Your task to perform on an android device: all mails in gmail Image 0: 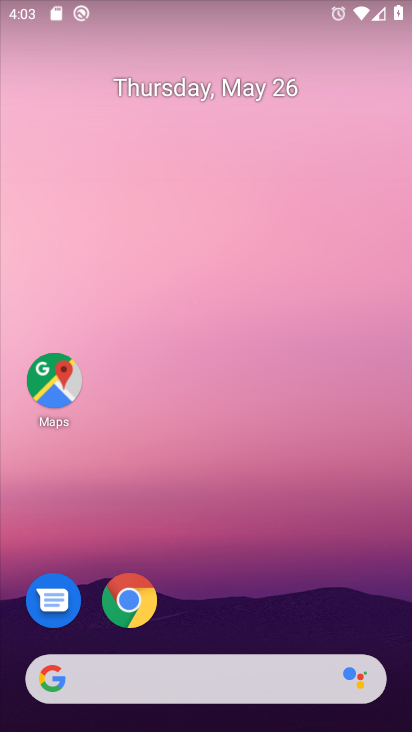
Step 0: drag from (195, 626) to (289, 259)
Your task to perform on an android device: all mails in gmail Image 1: 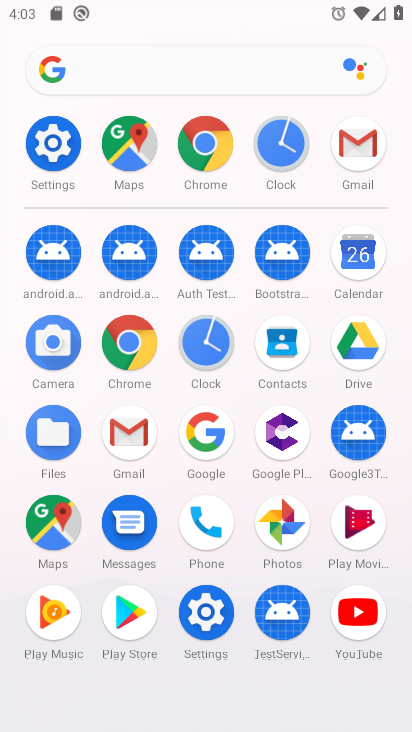
Step 1: click (117, 444)
Your task to perform on an android device: all mails in gmail Image 2: 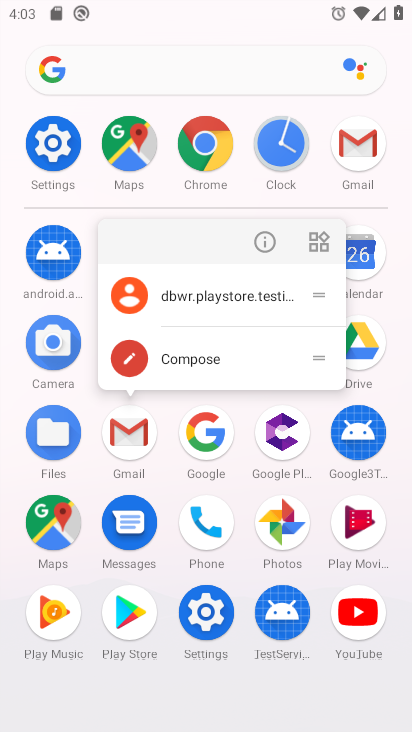
Step 2: click (115, 444)
Your task to perform on an android device: all mails in gmail Image 3: 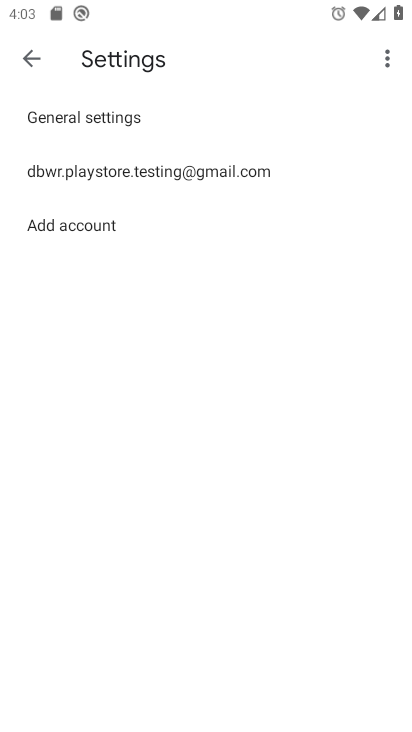
Step 3: click (26, 49)
Your task to perform on an android device: all mails in gmail Image 4: 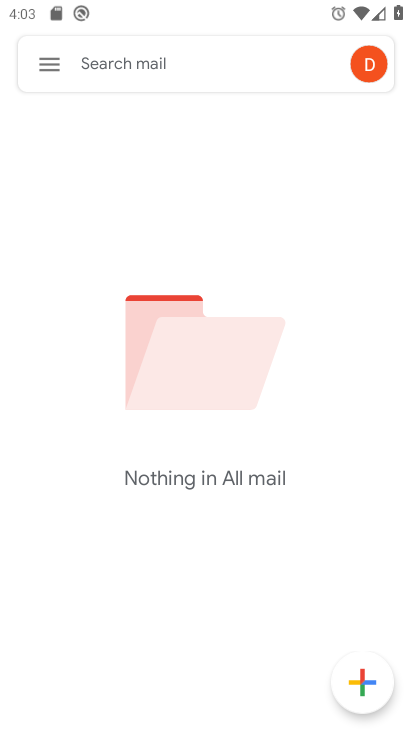
Step 4: click (47, 75)
Your task to perform on an android device: all mails in gmail Image 5: 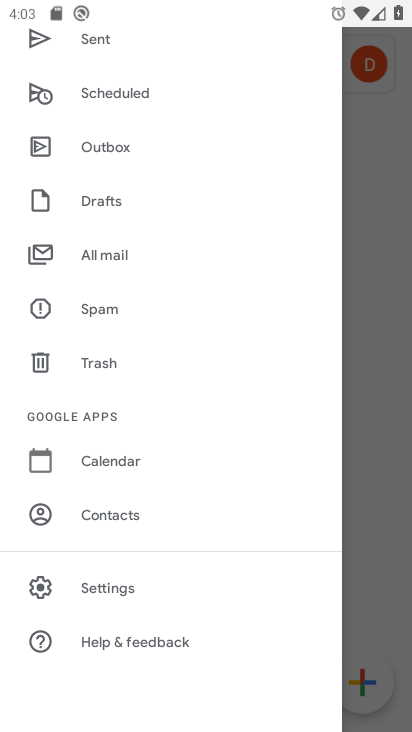
Step 5: task complete